Your task to perform on an android device: Open location settings Image 0: 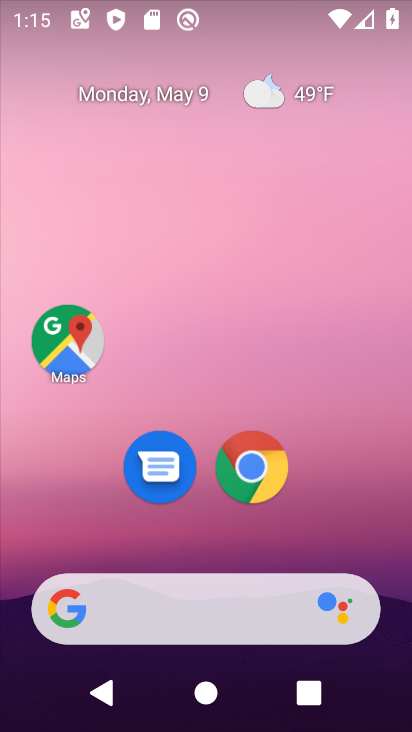
Step 0: drag from (382, 531) to (379, 155)
Your task to perform on an android device: Open location settings Image 1: 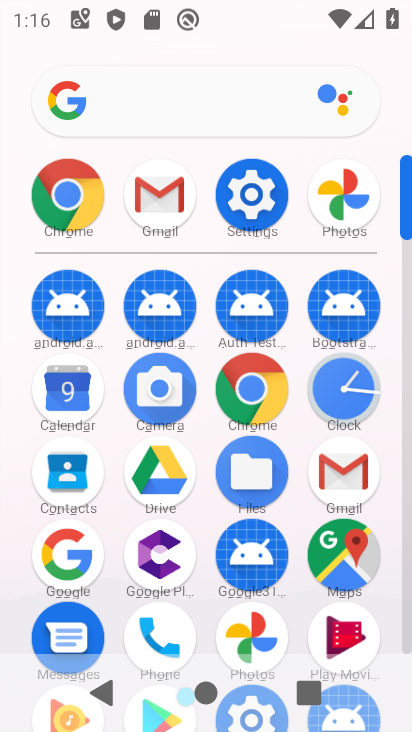
Step 1: click (244, 218)
Your task to perform on an android device: Open location settings Image 2: 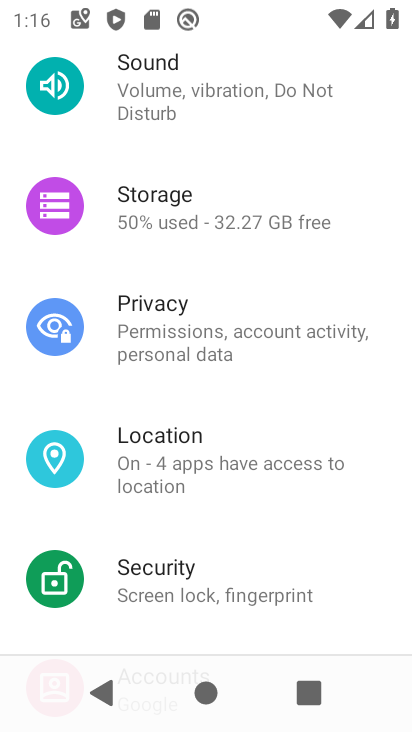
Step 2: click (248, 428)
Your task to perform on an android device: Open location settings Image 3: 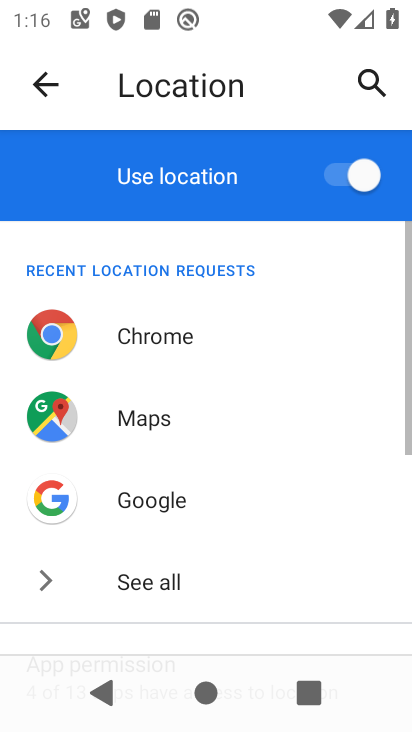
Step 3: task complete